Your task to perform on an android device: Open sound settings Image 0: 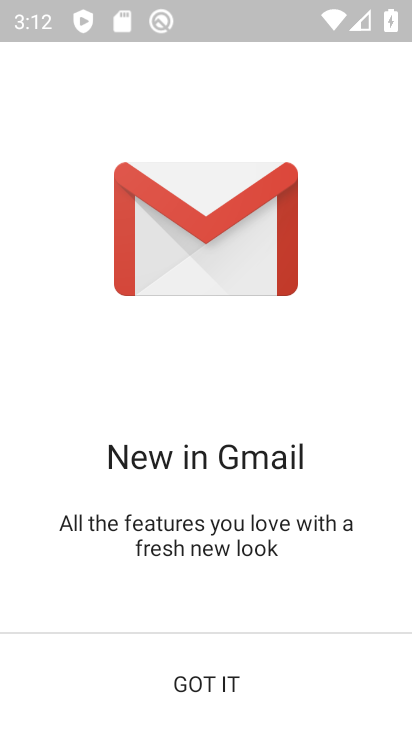
Step 0: click (205, 684)
Your task to perform on an android device: Open sound settings Image 1: 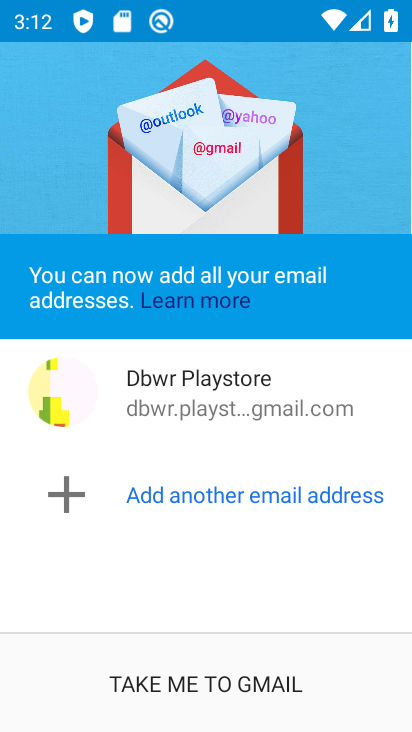
Step 1: press back button
Your task to perform on an android device: Open sound settings Image 2: 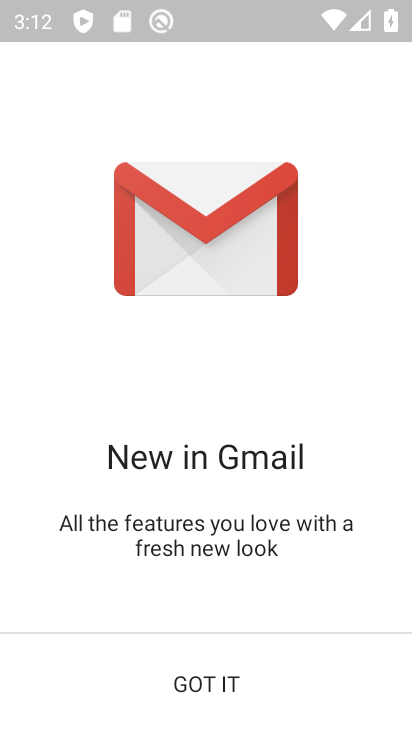
Step 2: click (193, 678)
Your task to perform on an android device: Open sound settings Image 3: 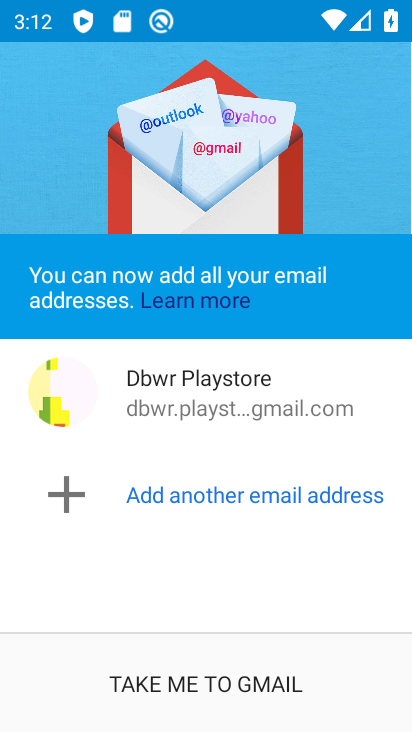
Step 3: press back button
Your task to perform on an android device: Open sound settings Image 4: 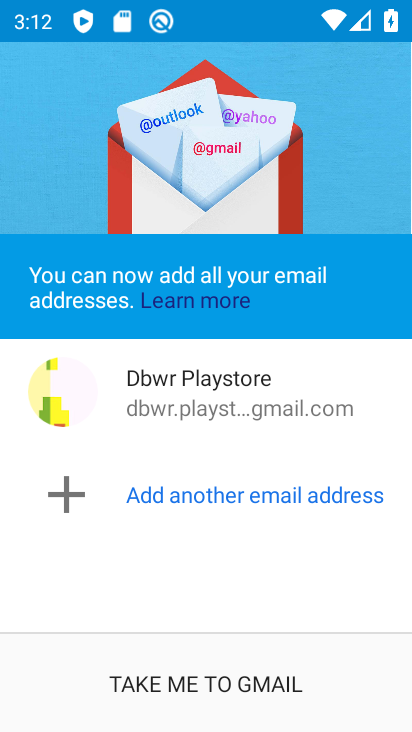
Step 4: press back button
Your task to perform on an android device: Open sound settings Image 5: 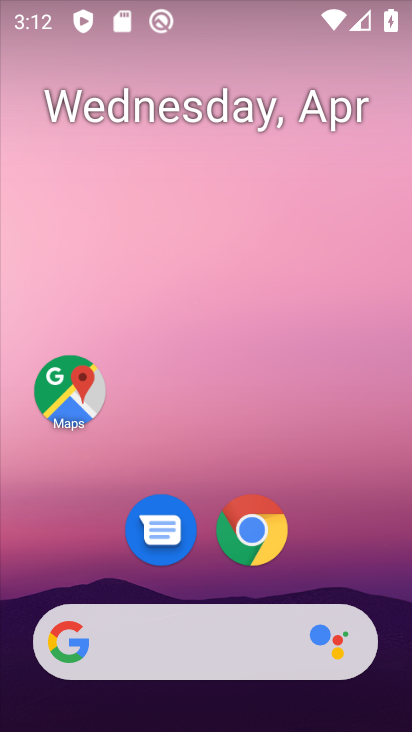
Step 5: drag from (200, 484) to (271, 57)
Your task to perform on an android device: Open sound settings Image 6: 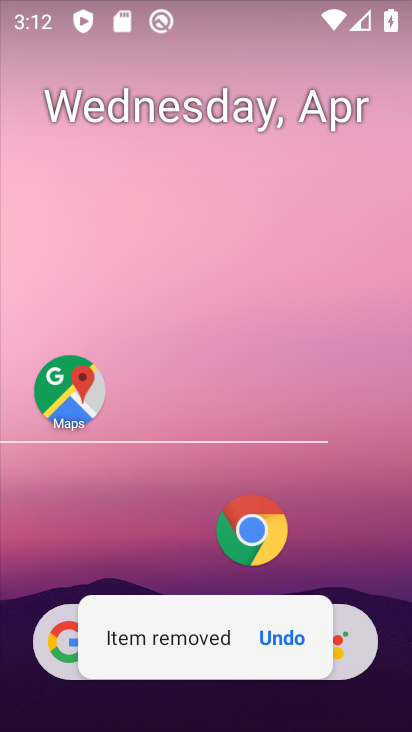
Step 6: drag from (164, 513) to (179, 55)
Your task to perform on an android device: Open sound settings Image 7: 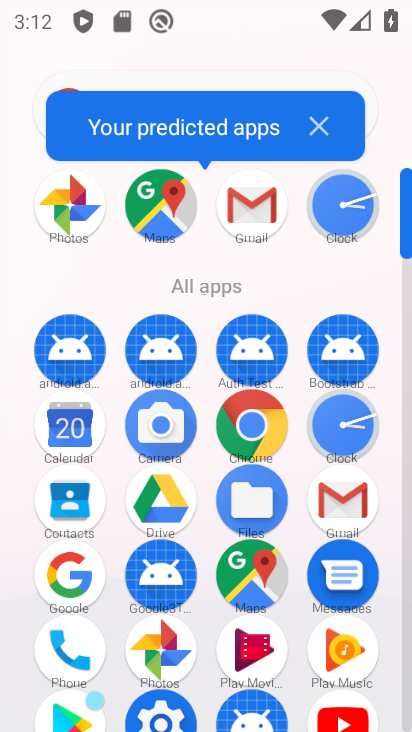
Step 7: drag from (192, 596) to (253, 144)
Your task to perform on an android device: Open sound settings Image 8: 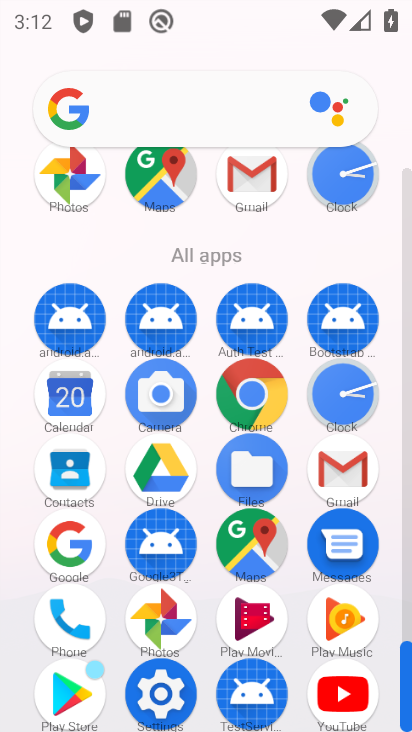
Step 8: click (153, 682)
Your task to perform on an android device: Open sound settings Image 9: 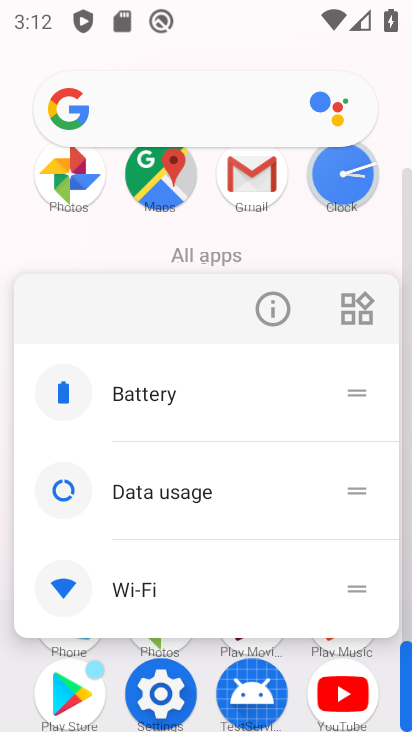
Step 9: click (172, 692)
Your task to perform on an android device: Open sound settings Image 10: 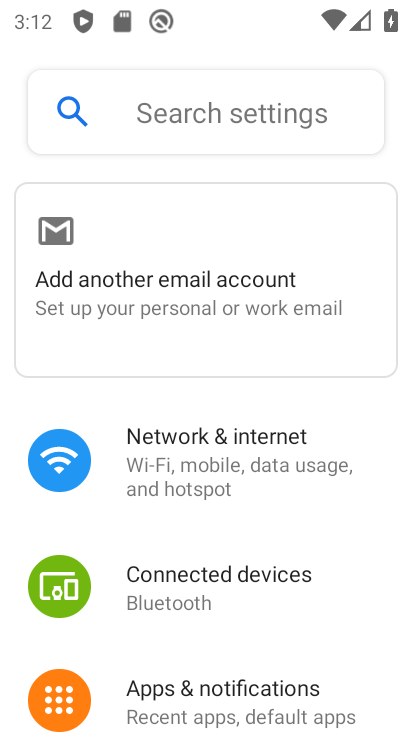
Step 10: drag from (223, 576) to (297, 131)
Your task to perform on an android device: Open sound settings Image 11: 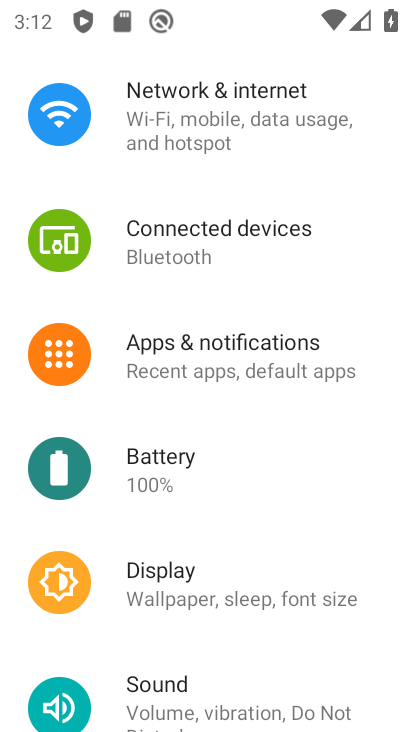
Step 11: click (177, 688)
Your task to perform on an android device: Open sound settings Image 12: 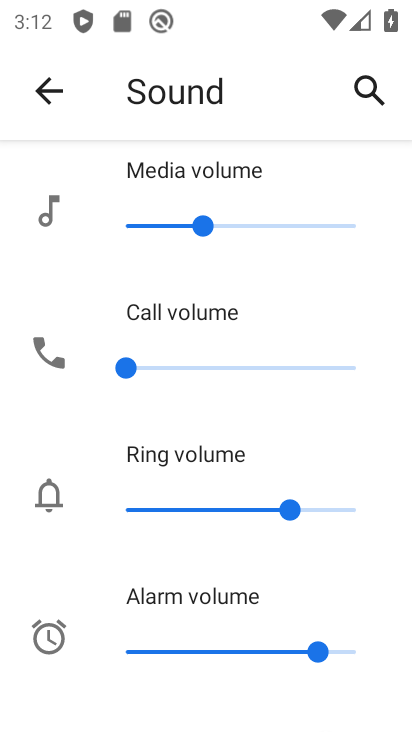
Step 12: task complete